Your task to perform on an android device: Empty the shopping cart on newegg. Image 0: 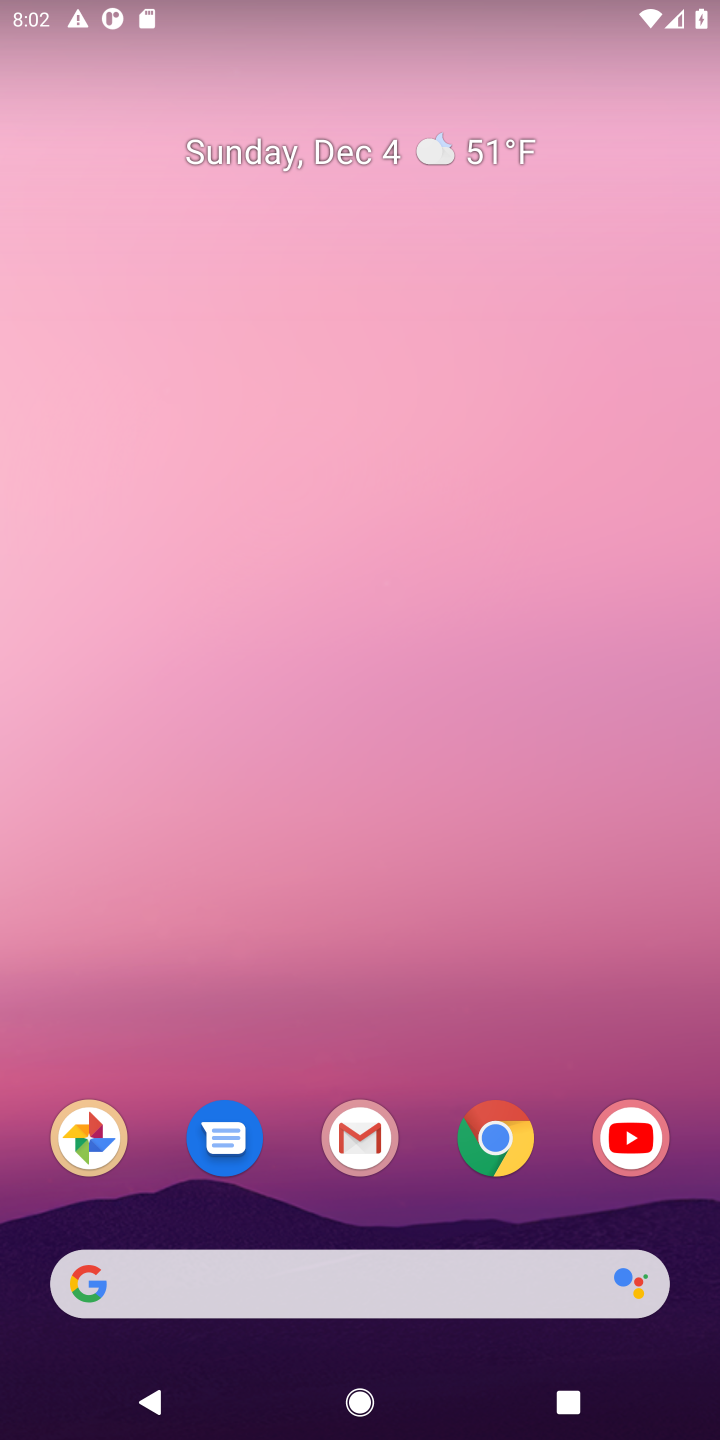
Step 0: click (490, 1147)
Your task to perform on an android device: Empty the shopping cart on newegg. Image 1: 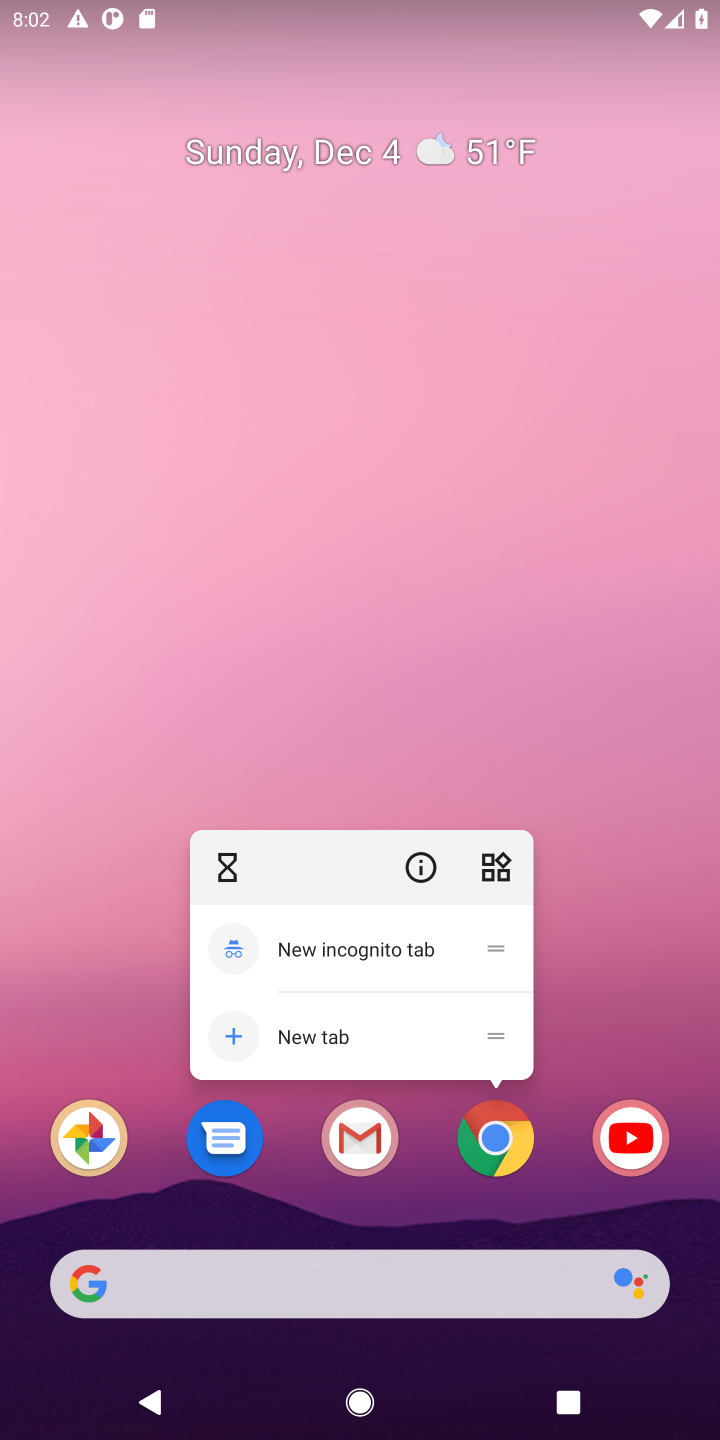
Step 1: click (490, 1147)
Your task to perform on an android device: Empty the shopping cart on newegg. Image 2: 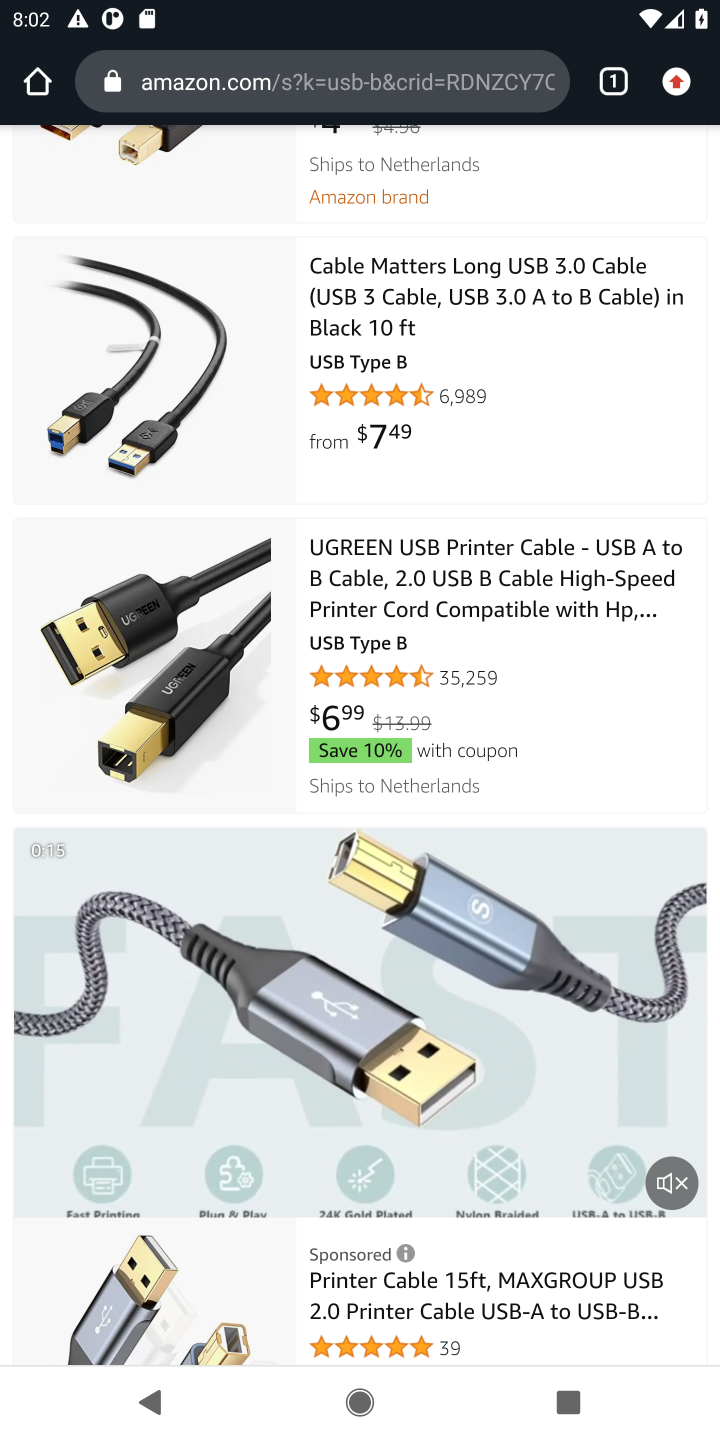
Step 2: click (300, 97)
Your task to perform on an android device: Empty the shopping cart on newegg. Image 3: 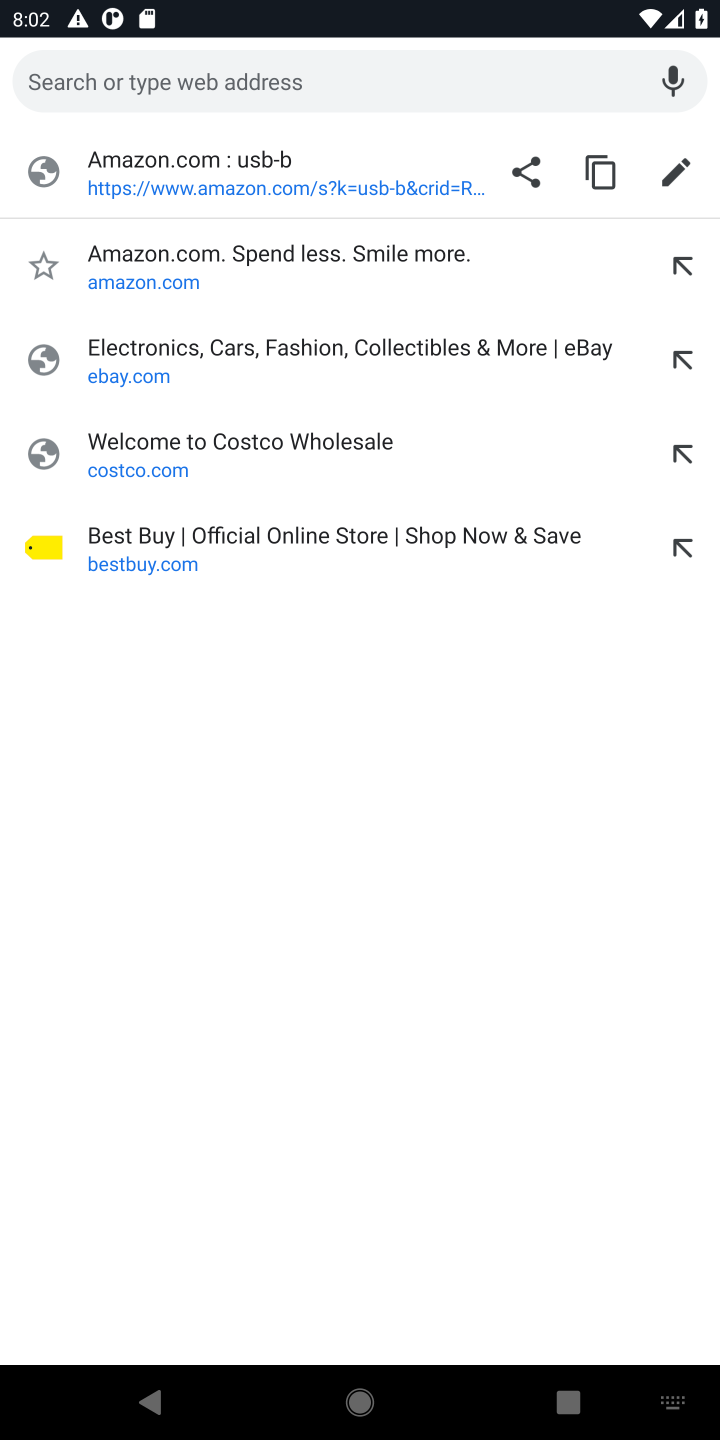
Step 3: type "newegg"
Your task to perform on an android device: Empty the shopping cart on newegg. Image 4: 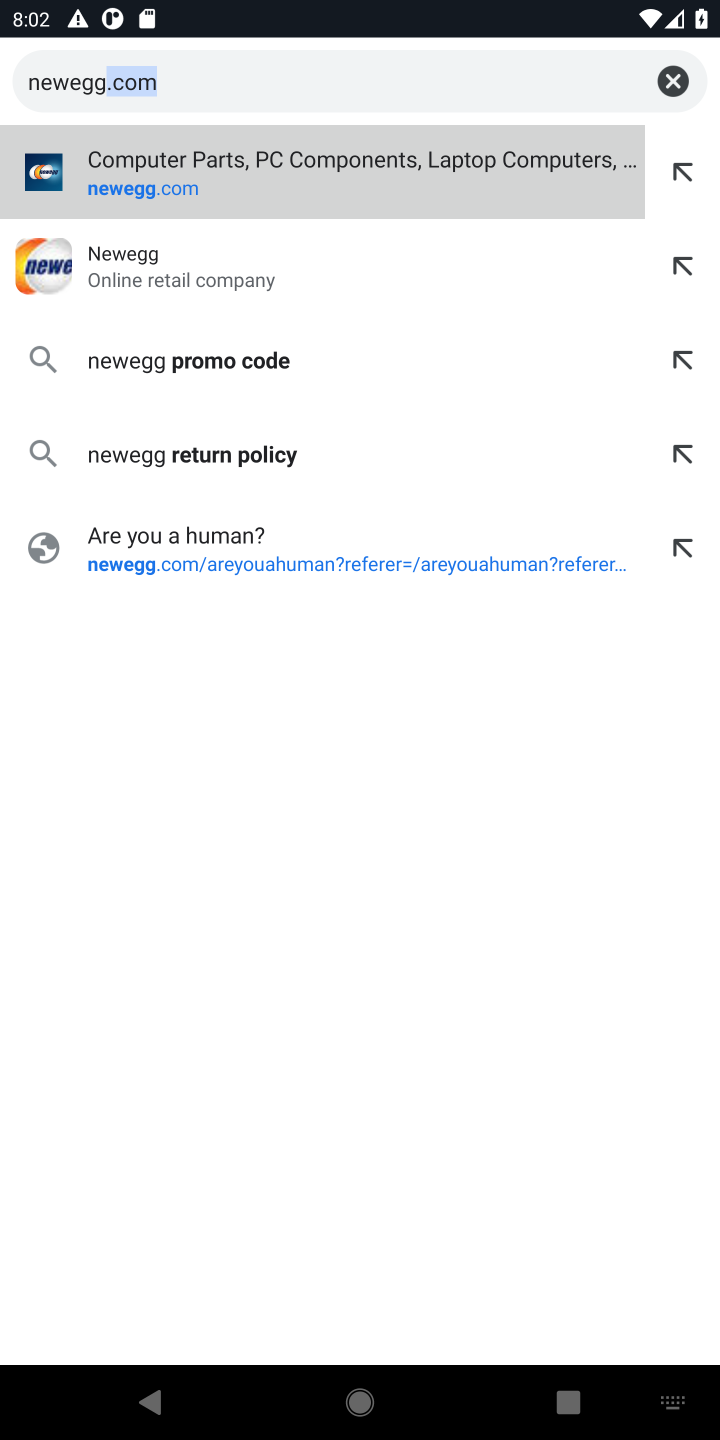
Step 4: press enter
Your task to perform on an android device: Empty the shopping cart on newegg. Image 5: 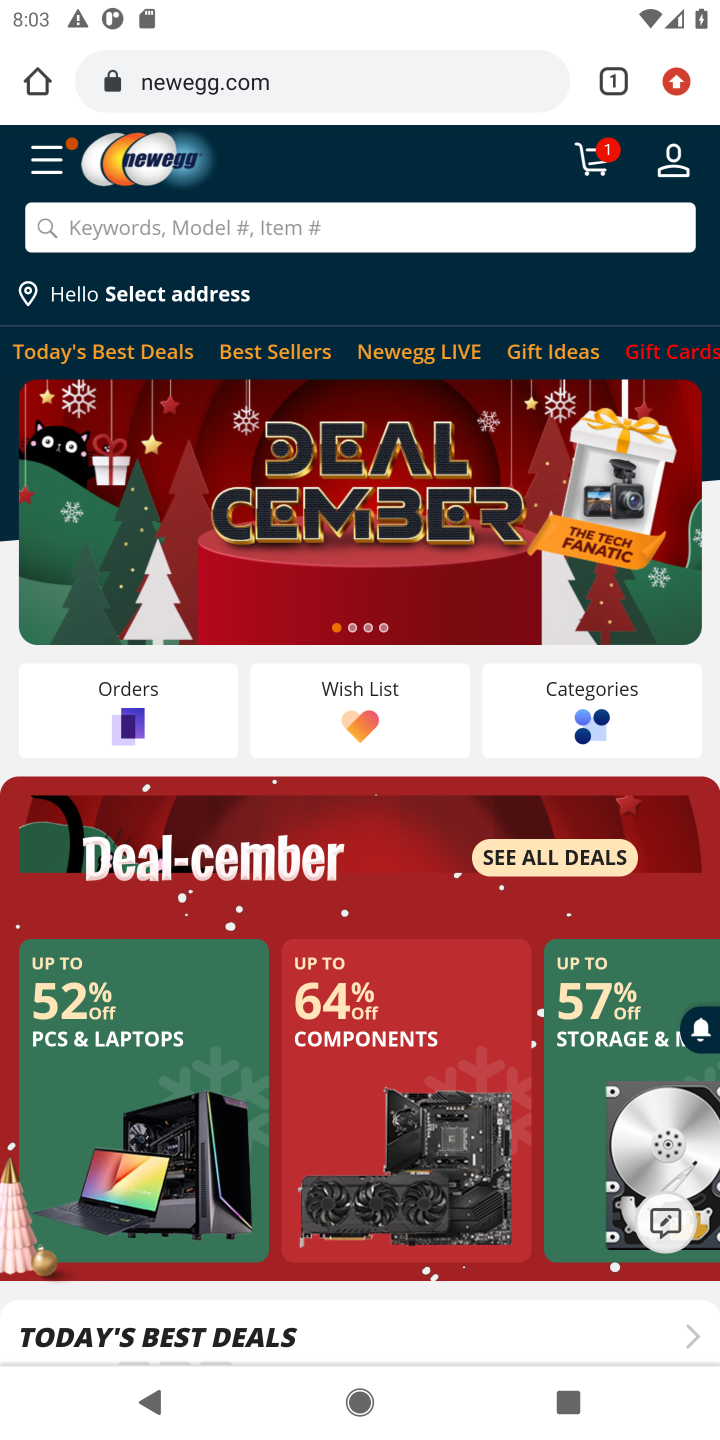
Step 5: click (580, 165)
Your task to perform on an android device: Empty the shopping cart on newegg. Image 6: 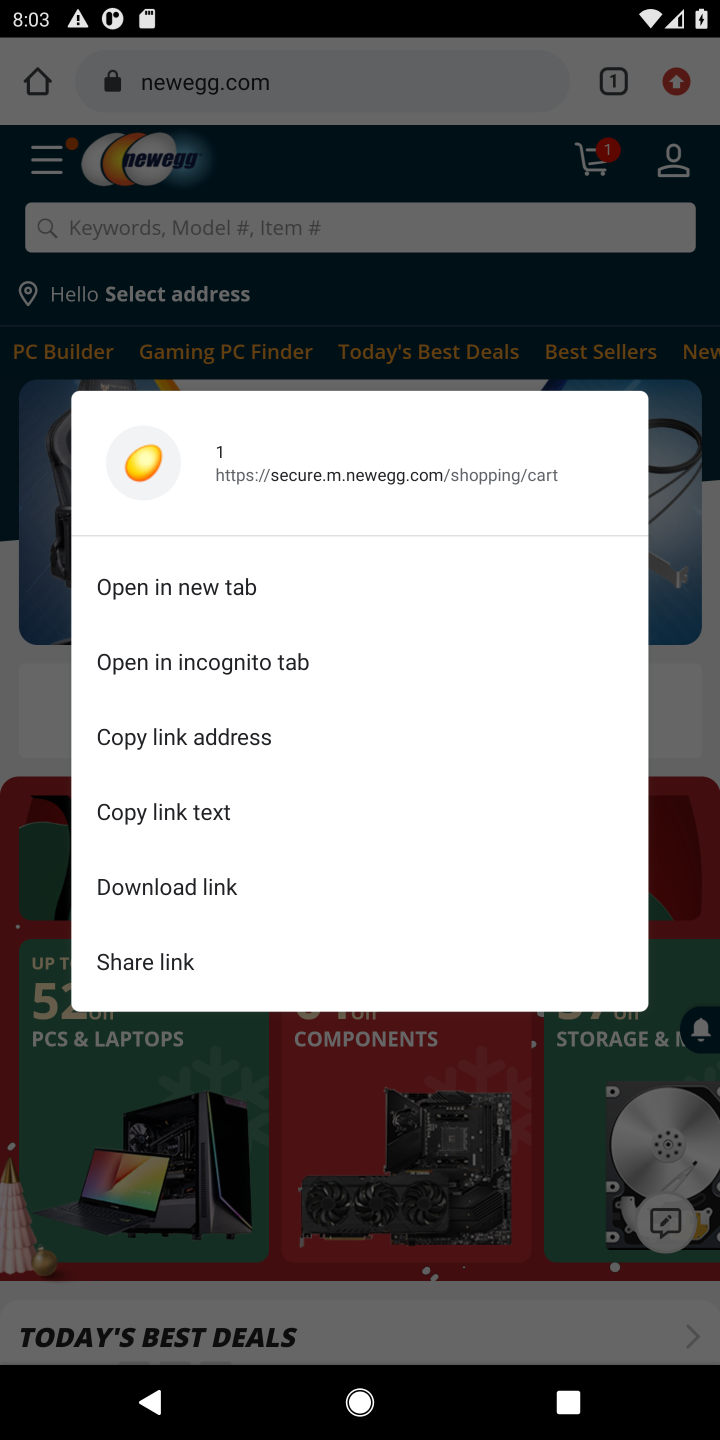
Step 6: click (258, 211)
Your task to perform on an android device: Empty the shopping cart on newegg. Image 7: 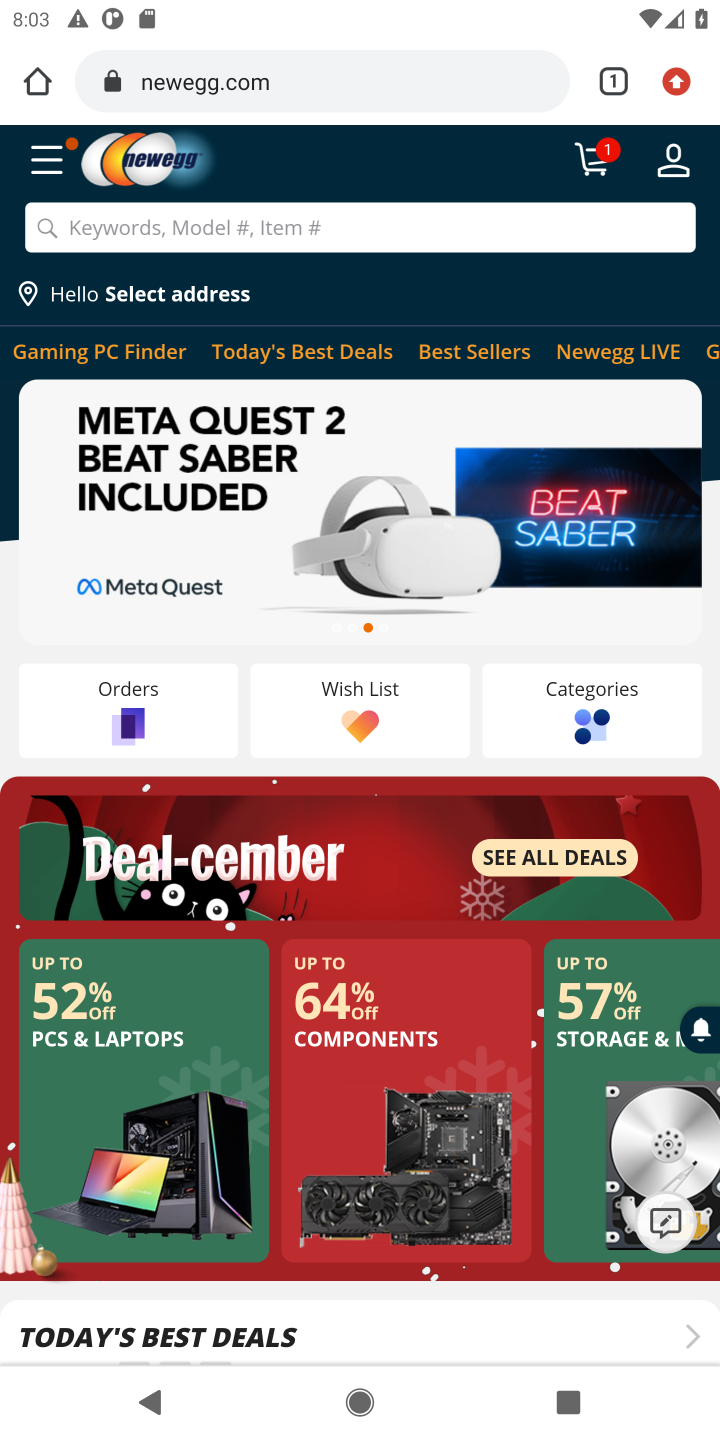
Step 7: click (598, 162)
Your task to perform on an android device: Empty the shopping cart on newegg. Image 8: 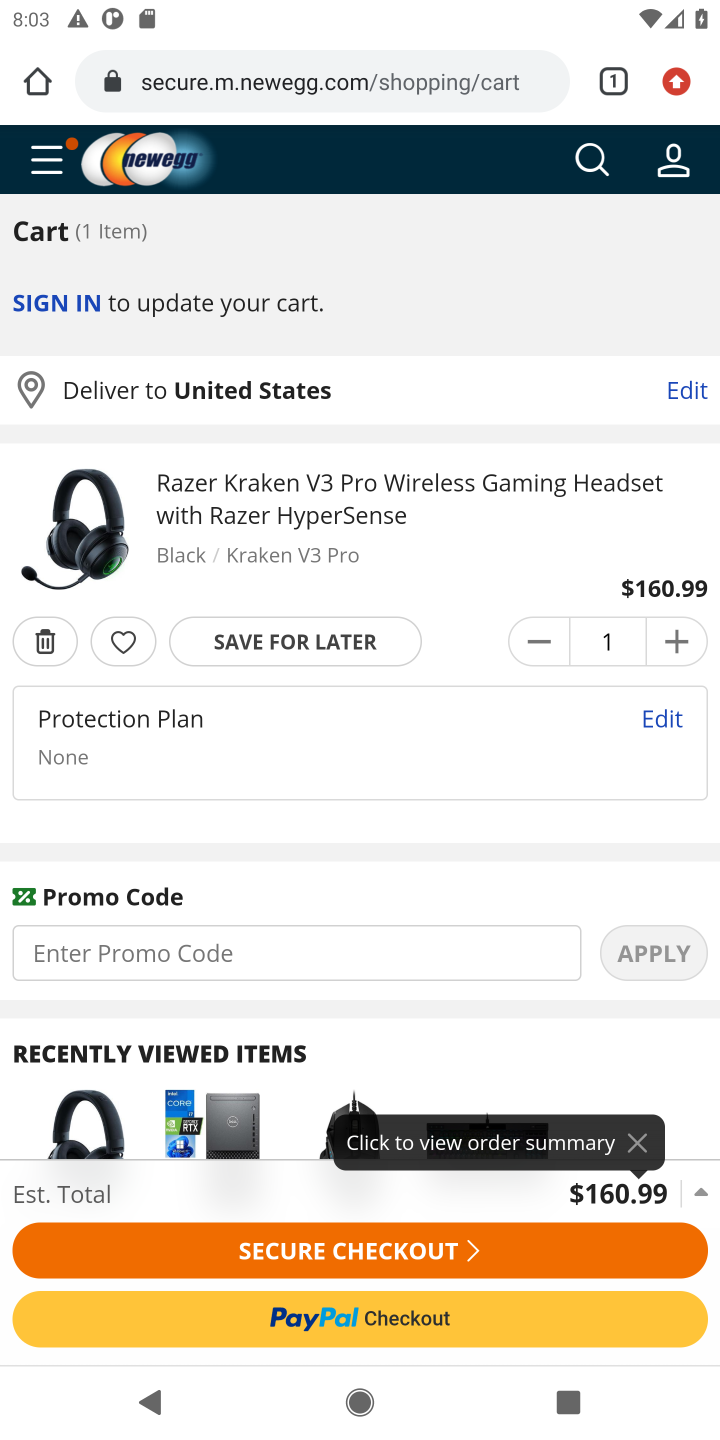
Step 8: click (35, 631)
Your task to perform on an android device: Empty the shopping cart on newegg. Image 9: 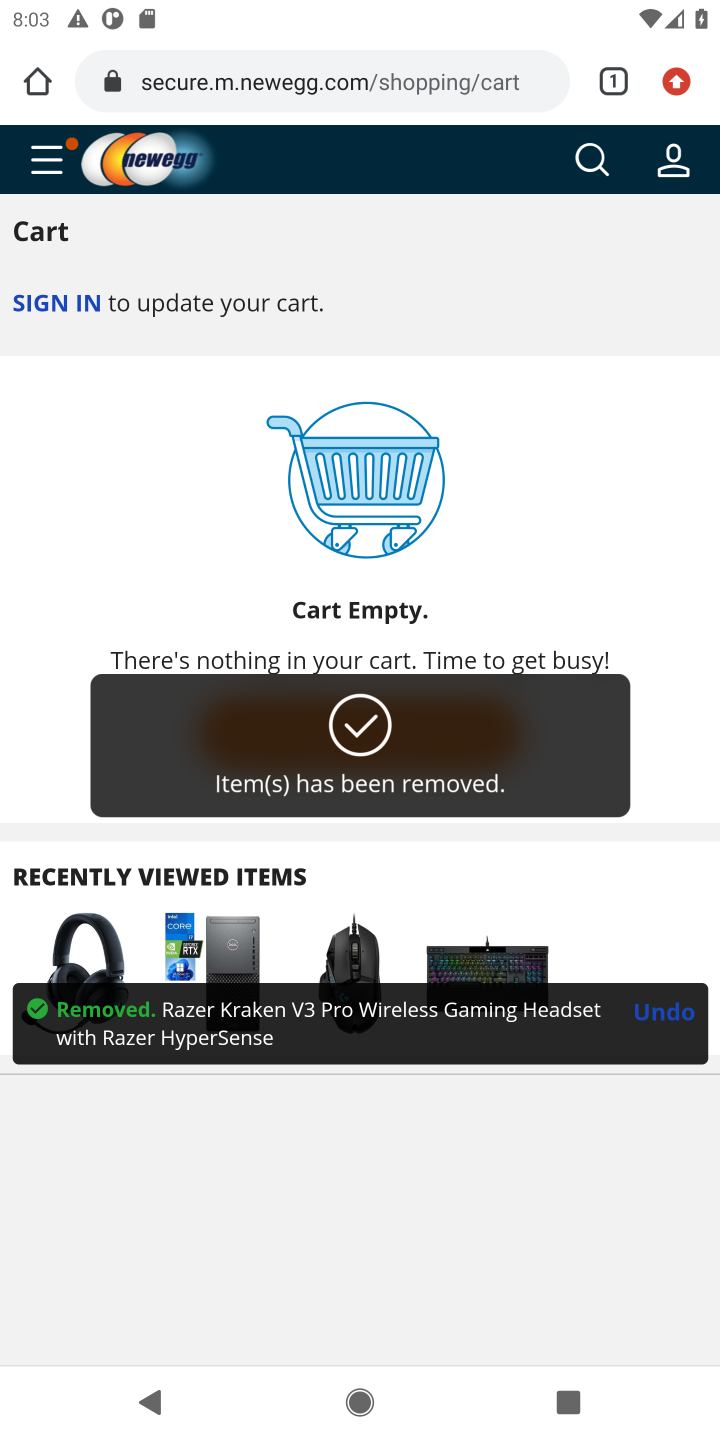
Step 9: task complete